Your task to perform on an android device: turn off location history Image 0: 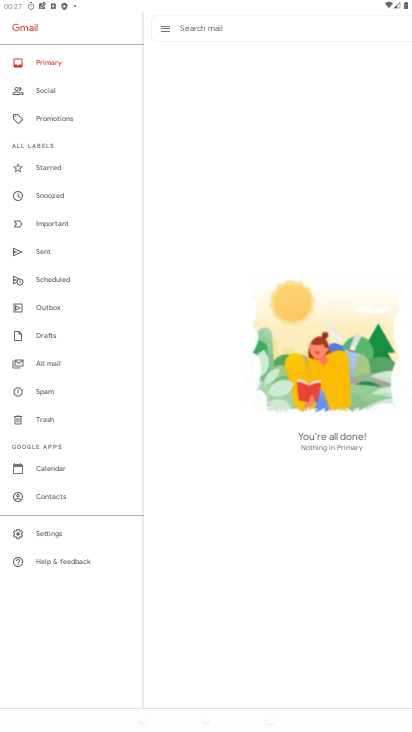
Step 0: press home button
Your task to perform on an android device: turn off location history Image 1: 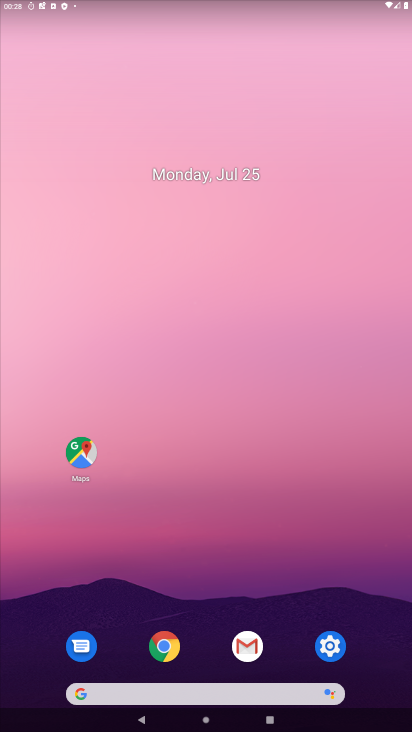
Step 1: click (329, 645)
Your task to perform on an android device: turn off location history Image 2: 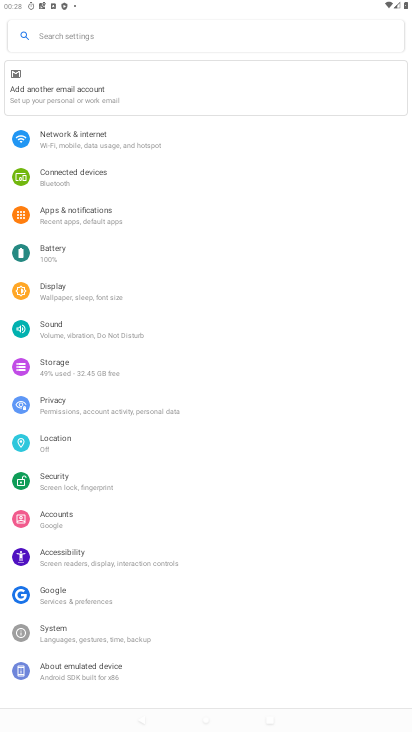
Step 2: click (61, 434)
Your task to perform on an android device: turn off location history Image 3: 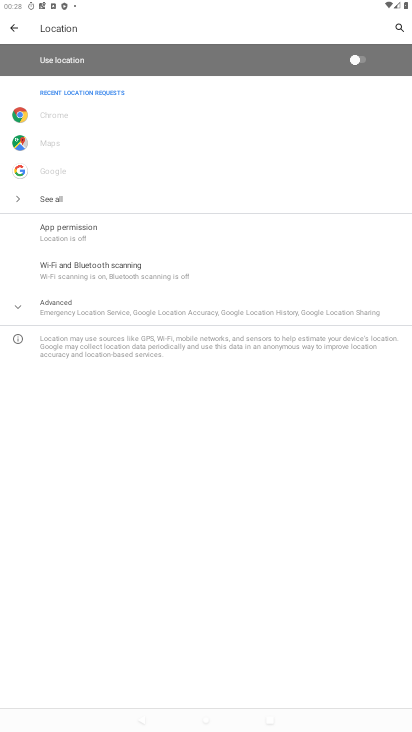
Step 3: click (350, 61)
Your task to perform on an android device: turn off location history Image 4: 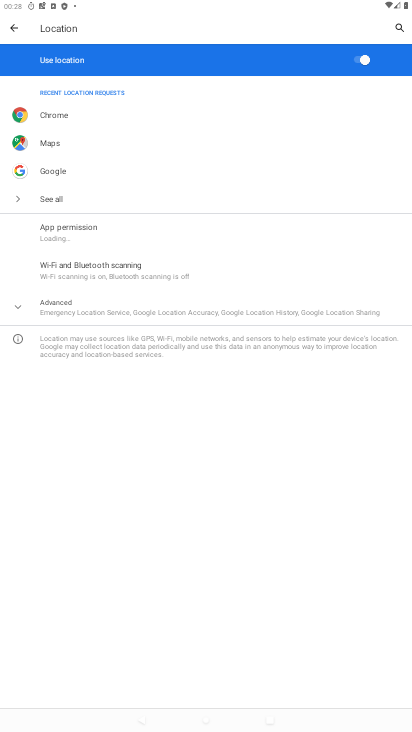
Step 4: click (350, 61)
Your task to perform on an android device: turn off location history Image 5: 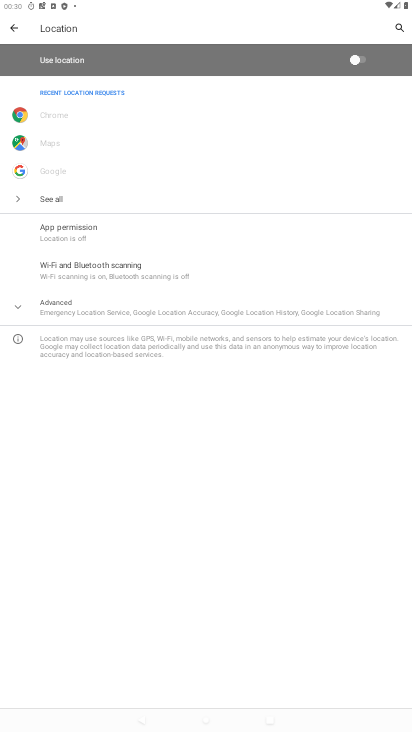
Step 5: task complete